Your task to perform on an android device: turn vacation reply on in the gmail app Image 0: 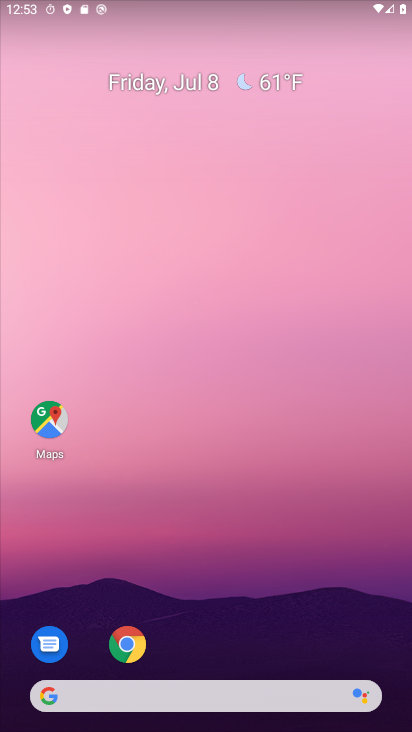
Step 0: drag from (186, 598) to (191, 95)
Your task to perform on an android device: turn vacation reply on in the gmail app Image 1: 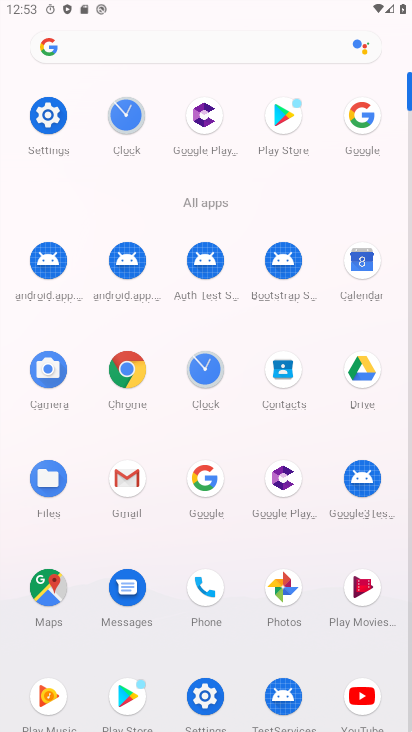
Step 1: click (131, 496)
Your task to perform on an android device: turn vacation reply on in the gmail app Image 2: 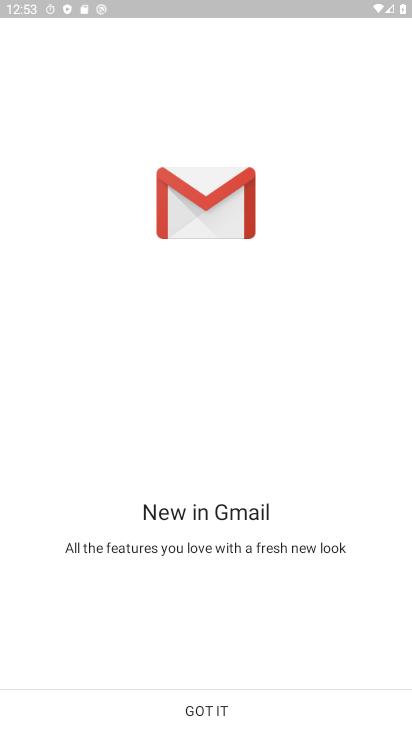
Step 2: click (208, 721)
Your task to perform on an android device: turn vacation reply on in the gmail app Image 3: 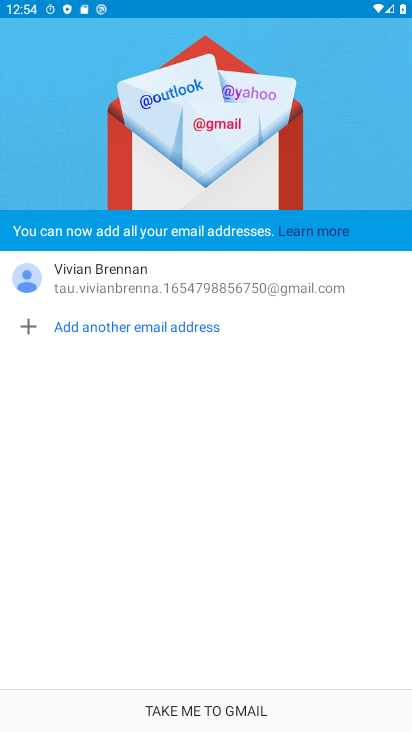
Step 3: click (199, 705)
Your task to perform on an android device: turn vacation reply on in the gmail app Image 4: 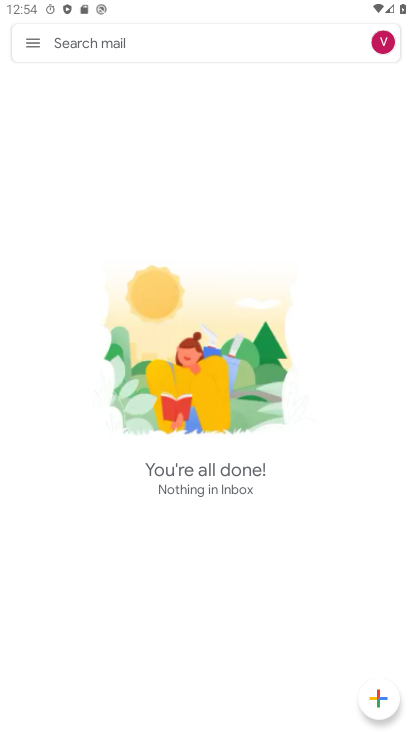
Step 4: click (26, 45)
Your task to perform on an android device: turn vacation reply on in the gmail app Image 5: 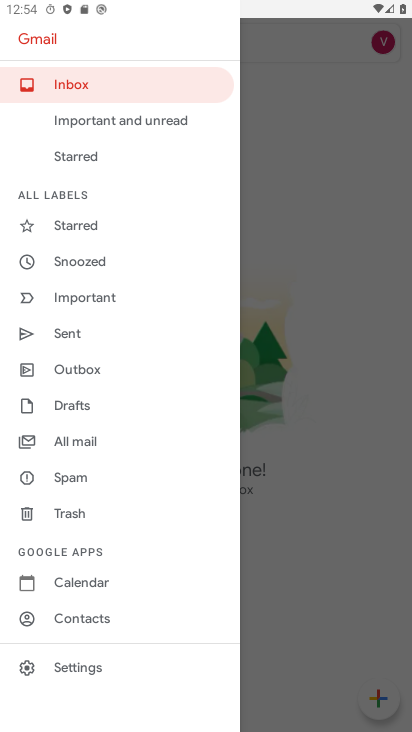
Step 5: click (71, 664)
Your task to perform on an android device: turn vacation reply on in the gmail app Image 6: 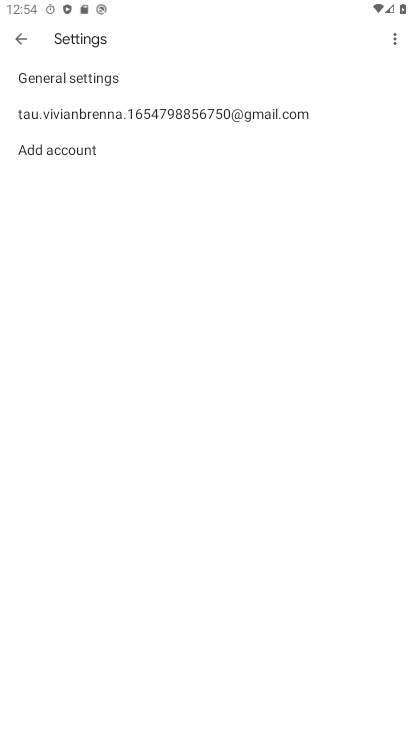
Step 6: click (158, 125)
Your task to perform on an android device: turn vacation reply on in the gmail app Image 7: 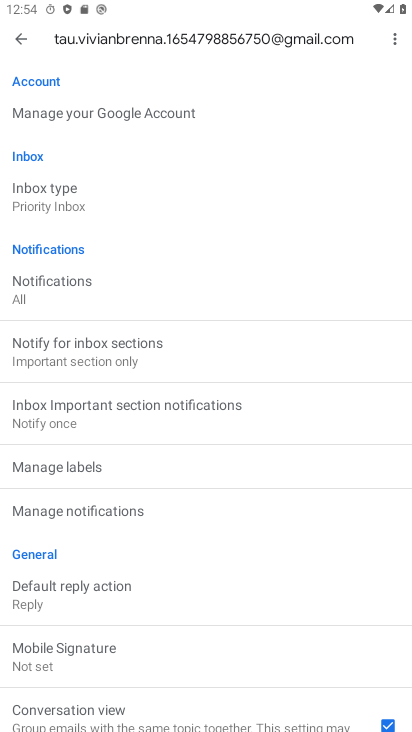
Step 7: drag from (147, 565) to (216, 247)
Your task to perform on an android device: turn vacation reply on in the gmail app Image 8: 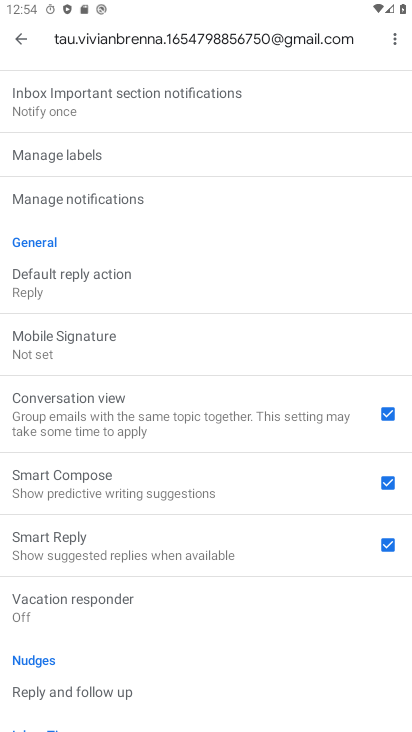
Step 8: click (122, 598)
Your task to perform on an android device: turn vacation reply on in the gmail app Image 9: 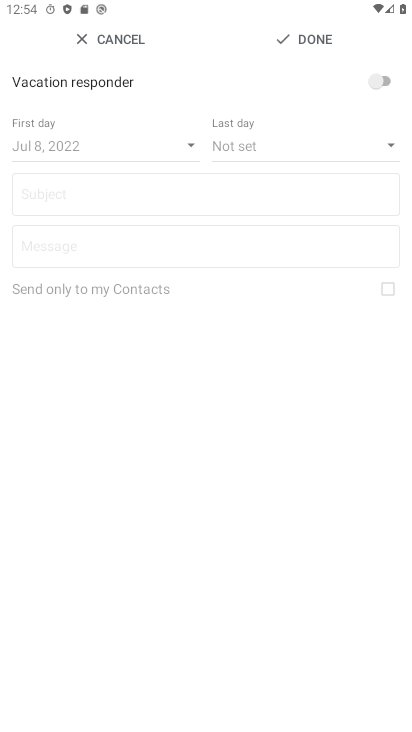
Step 9: click (387, 80)
Your task to perform on an android device: turn vacation reply on in the gmail app Image 10: 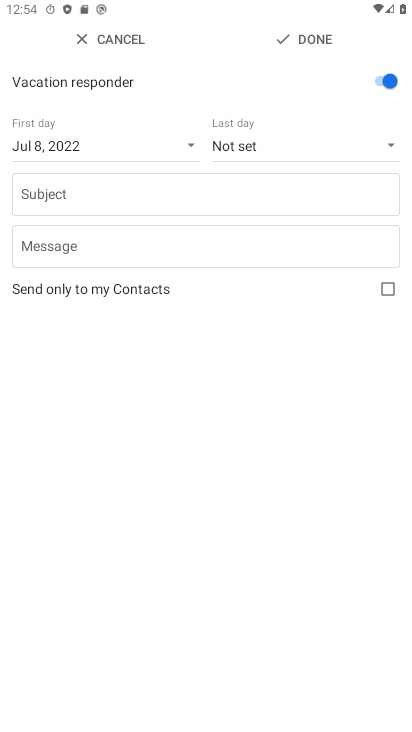
Step 10: task complete